Your task to perform on an android device: turn off airplane mode Image 0: 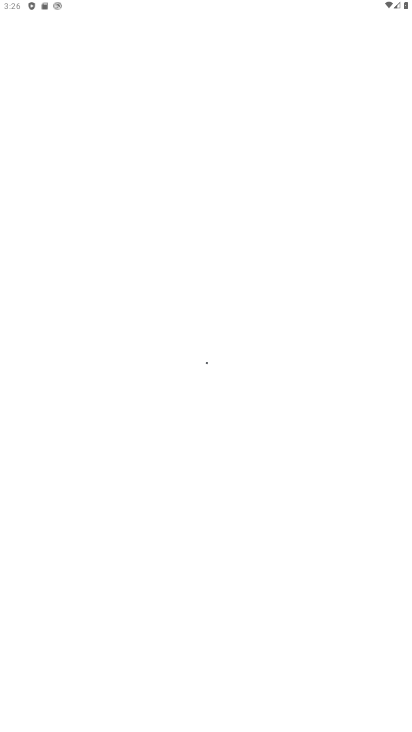
Step 0: press home button
Your task to perform on an android device: turn off airplane mode Image 1: 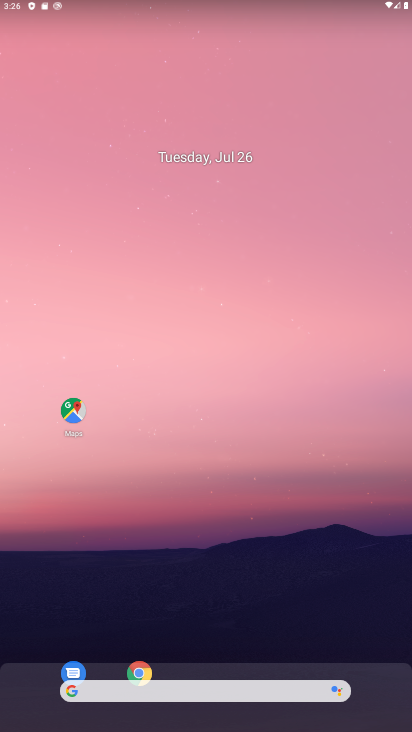
Step 1: drag from (265, 643) to (244, 85)
Your task to perform on an android device: turn off airplane mode Image 2: 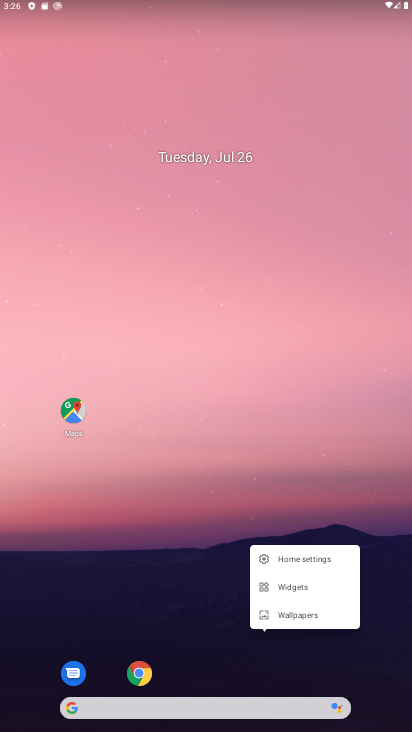
Step 2: drag from (230, 670) to (185, 140)
Your task to perform on an android device: turn off airplane mode Image 3: 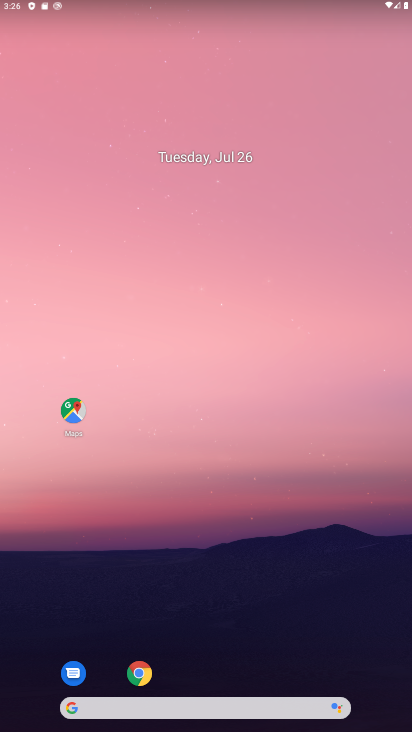
Step 3: drag from (381, 675) to (279, 18)
Your task to perform on an android device: turn off airplane mode Image 4: 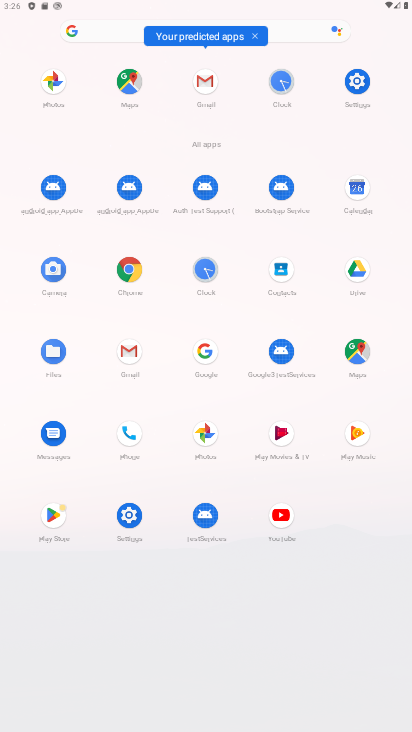
Step 4: click (365, 88)
Your task to perform on an android device: turn off airplane mode Image 5: 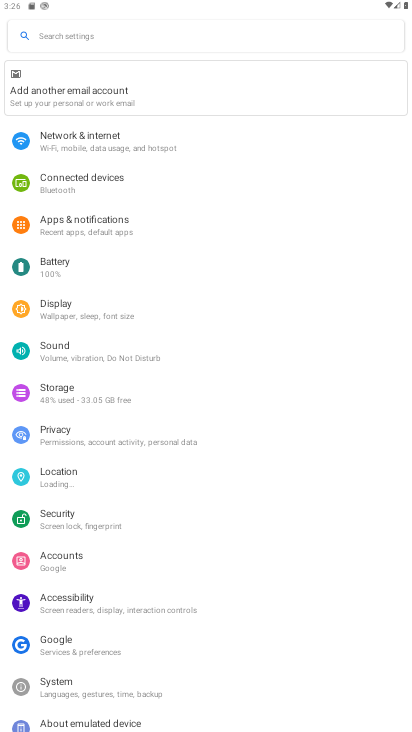
Step 5: click (254, 145)
Your task to perform on an android device: turn off airplane mode Image 6: 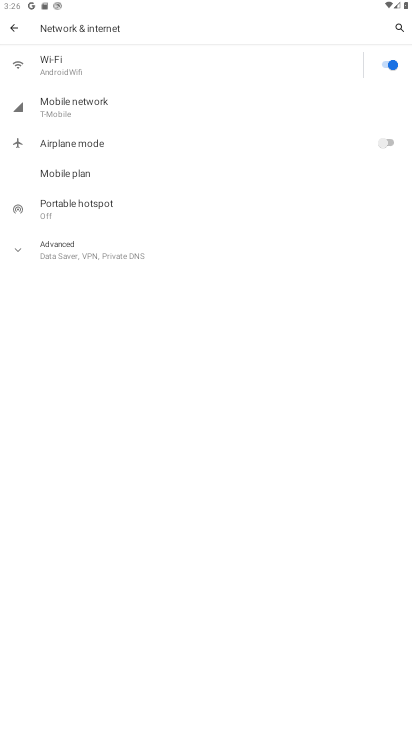
Step 6: task complete